Your task to perform on an android device: turn off wifi Image 0: 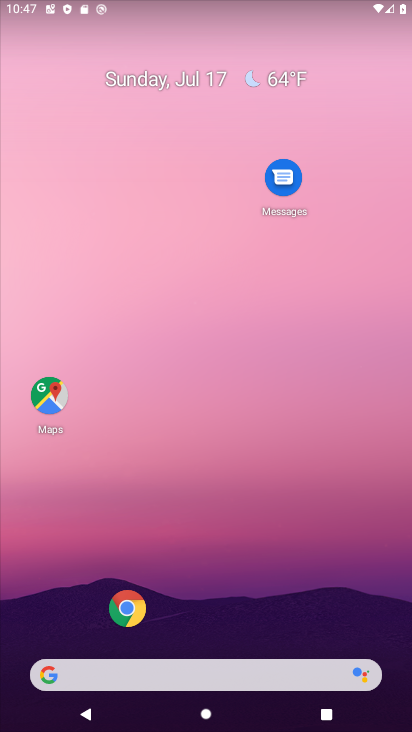
Step 0: drag from (35, 715) to (251, 93)
Your task to perform on an android device: turn off wifi Image 1: 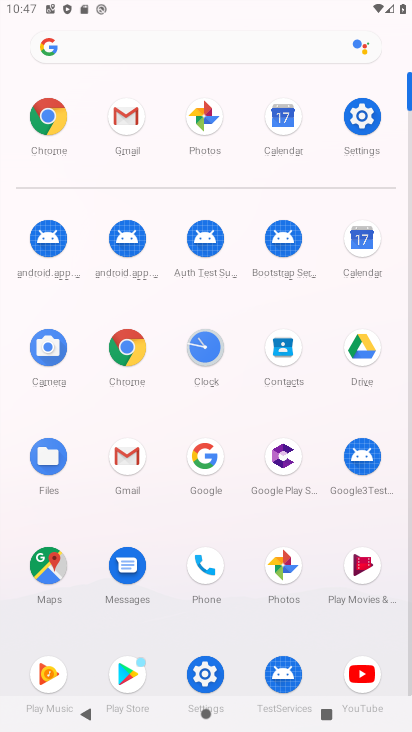
Step 1: click (222, 663)
Your task to perform on an android device: turn off wifi Image 2: 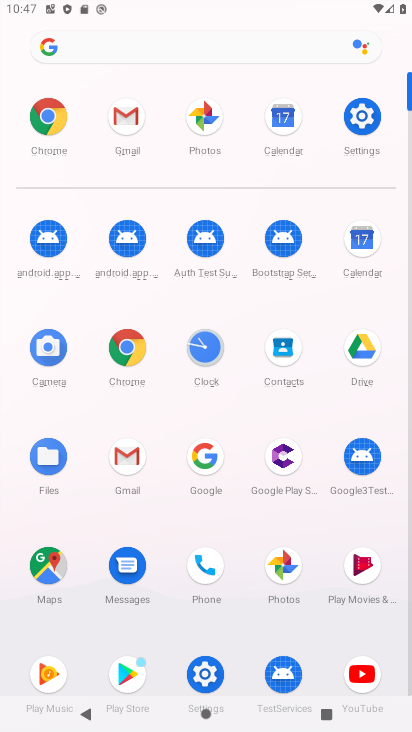
Step 2: click (195, 675)
Your task to perform on an android device: turn off wifi Image 3: 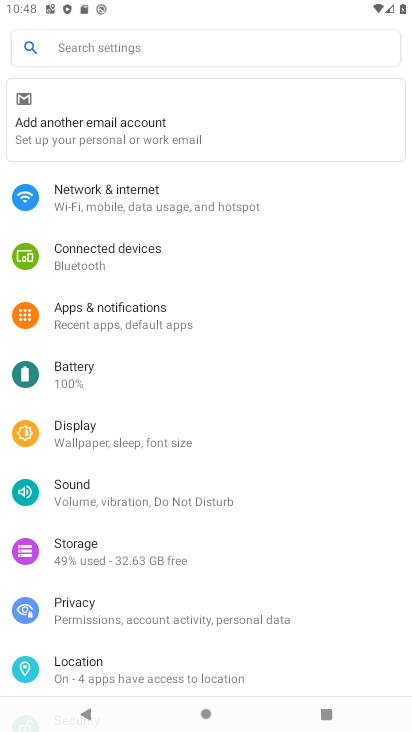
Step 3: click (110, 202)
Your task to perform on an android device: turn off wifi Image 4: 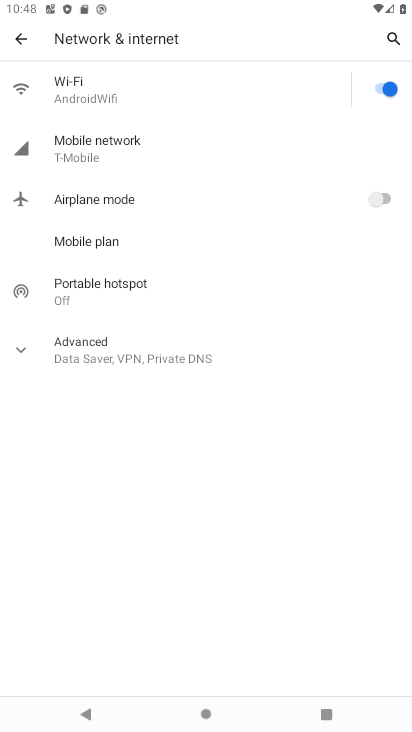
Step 4: click (390, 84)
Your task to perform on an android device: turn off wifi Image 5: 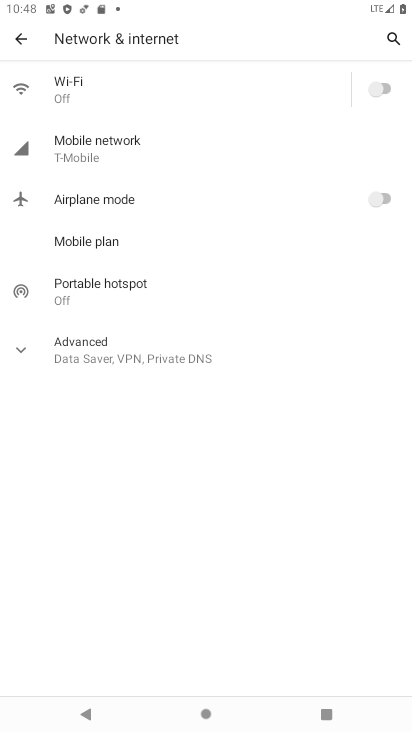
Step 5: task complete